Your task to perform on an android device: Open Yahoo.com Image 0: 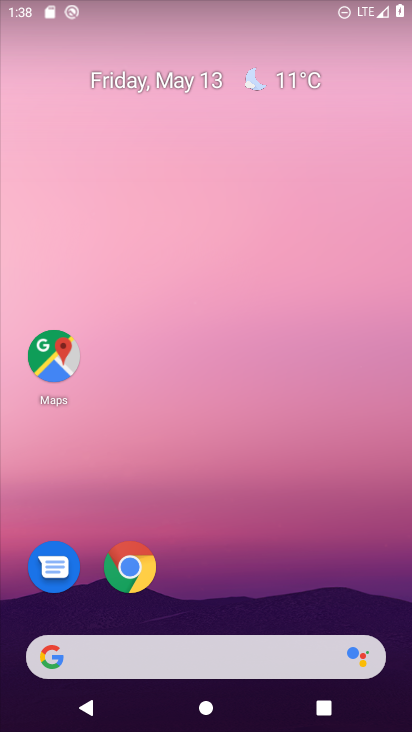
Step 0: press home button
Your task to perform on an android device: Open Yahoo.com Image 1: 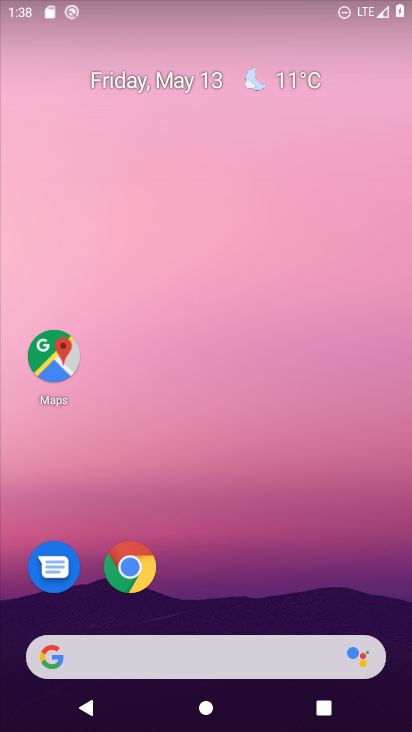
Step 1: drag from (241, 612) to (242, 68)
Your task to perform on an android device: Open Yahoo.com Image 2: 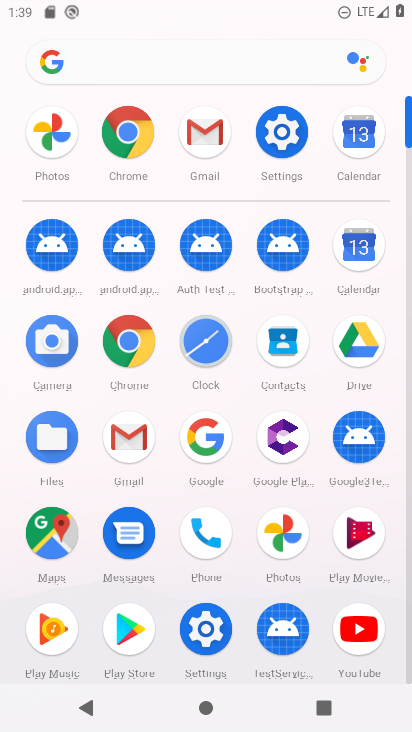
Step 2: click (125, 126)
Your task to perform on an android device: Open Yahoo.com Image 3: 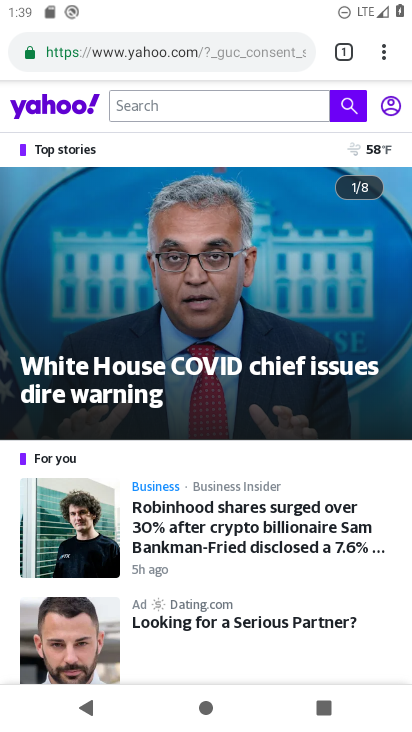
Step 3: click (382, 50)
Your task to perform on an android device: Open Yahoo.com Image 4: 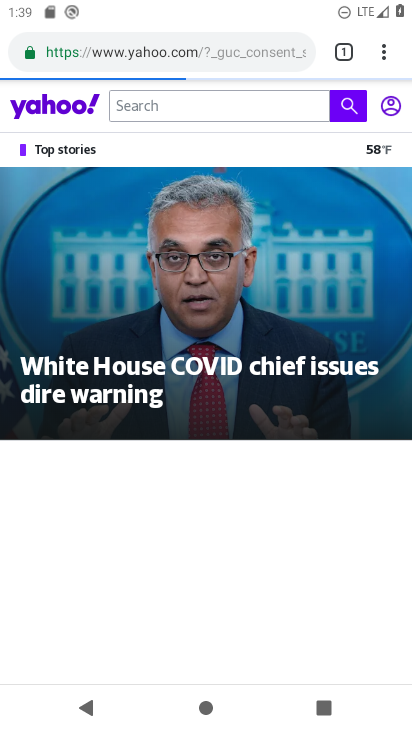
Step 4: click (384, 45)
Your task to perform on an android device: Open Yahoo.com Image 5: 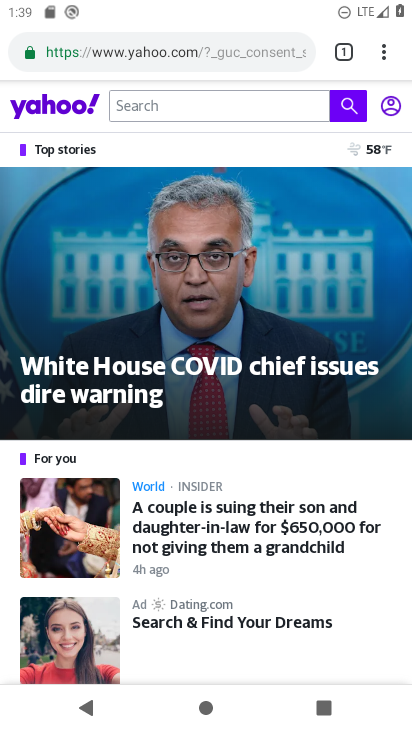
Step 5: click (385, 45)
Your task to perform on an android device: Open Yahoo.com Image 6: 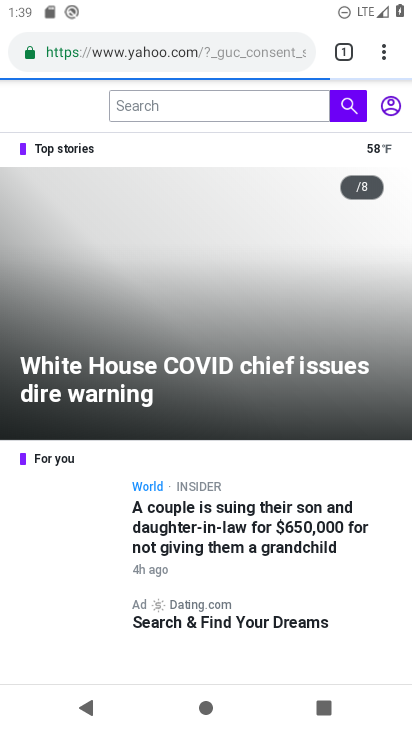
Step 6: click (381, 55)
Your task to perform on an android device: Open Yahoo.com Image 7: 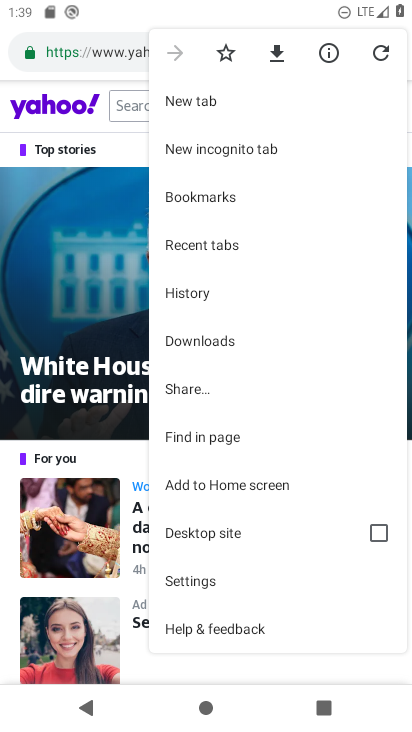
Step 7: click (66, 396)
Your task to perform on an android device: Open Yahoo.com Image 8: 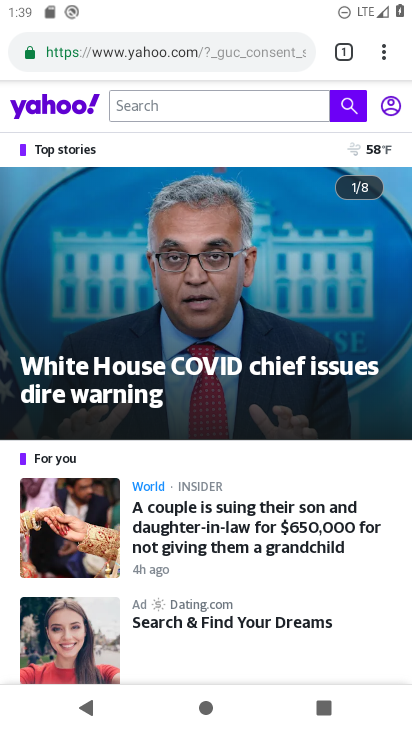
Step 8: task complete